Your task to perform on an android device: Search for a new desk on Ikea Image 0: 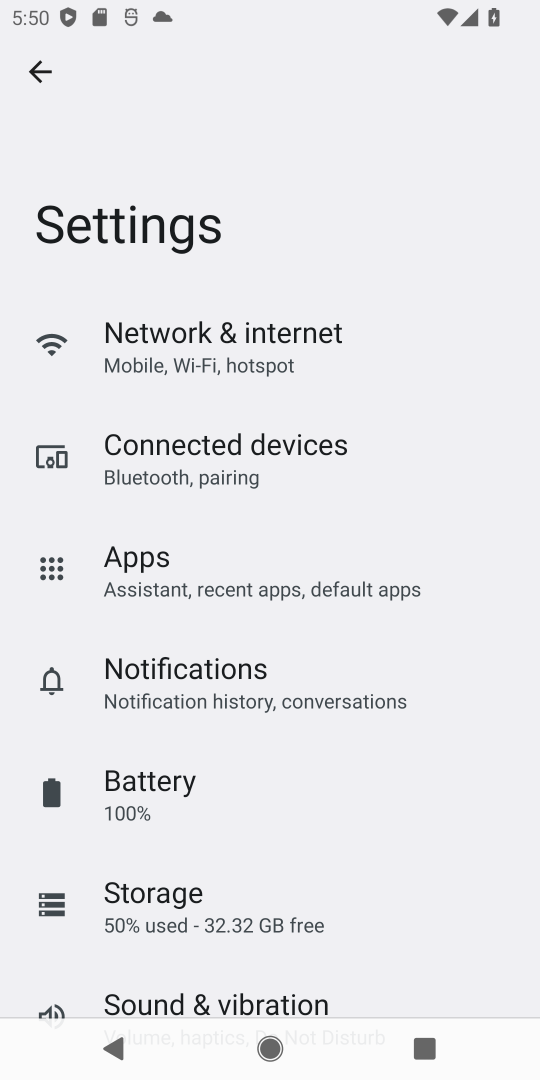
Step 0: press home button
Your task to perform on an android device: Search for a new desk on Ikea Image 1: 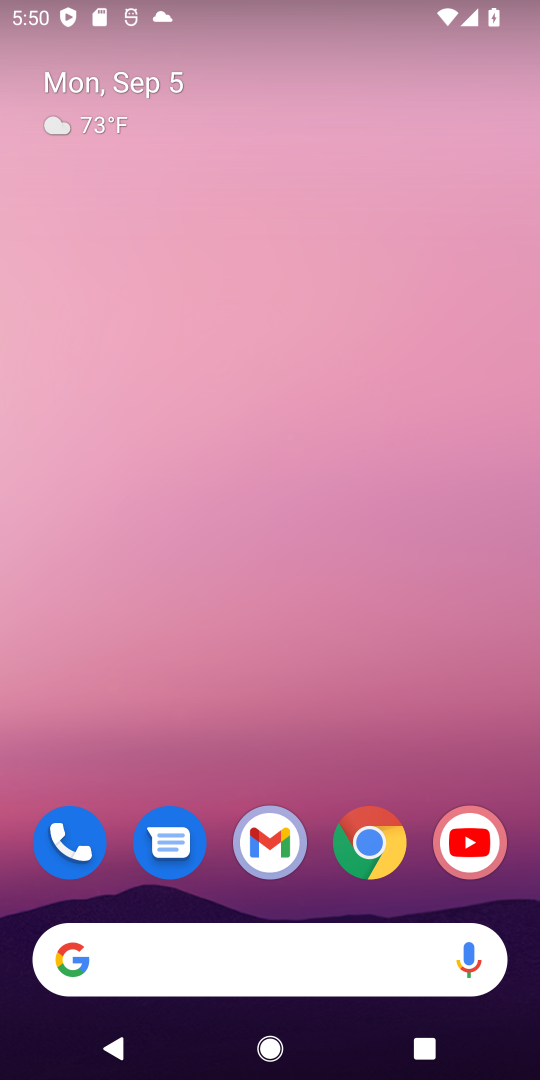
Step 1: click (369, 840)
Your task to perform on an android device: Search for a new desk on Ikea Image 2: 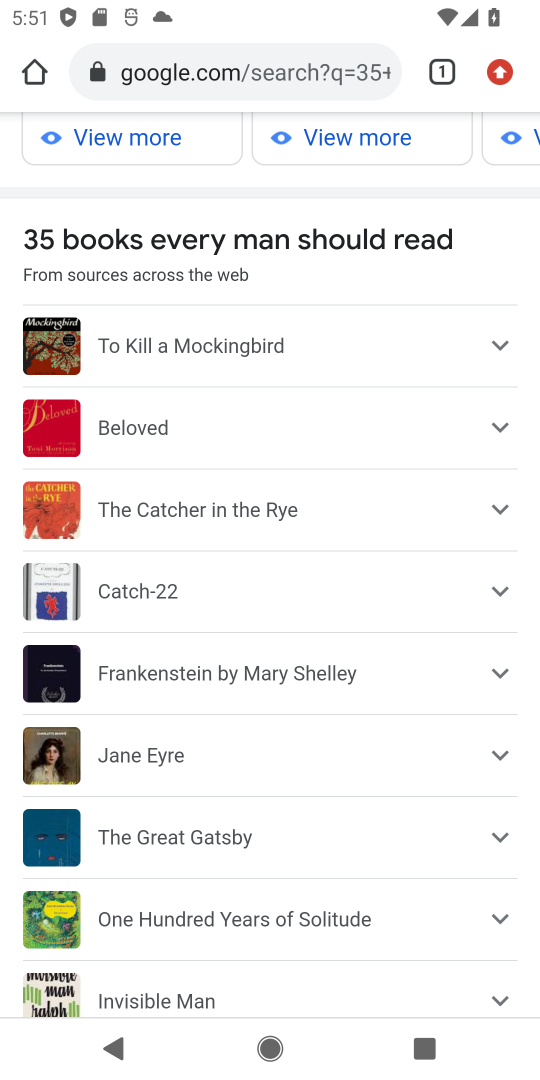
Step 2: click (341, 77)
Your task to perform on an android device: Search for a new desk on Ikea Image 3: 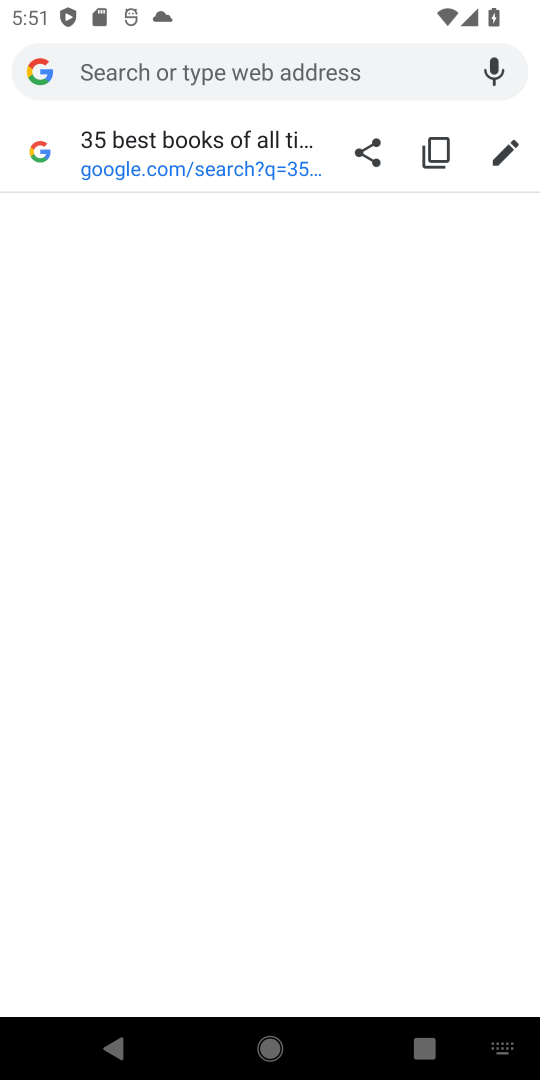
Step 3: type "Ikea"
Your task to perform on an android device: Search for a new desk on Ikea Image 4: 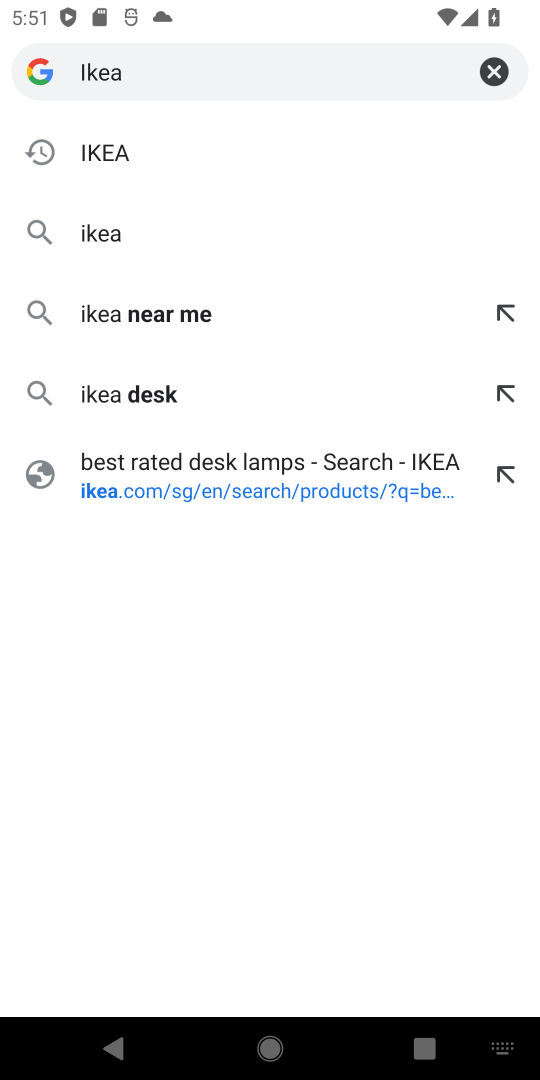
Step 4: click (111, 235)
Your task to perform on an android device: Search for a new desk on Ikea Image 5: 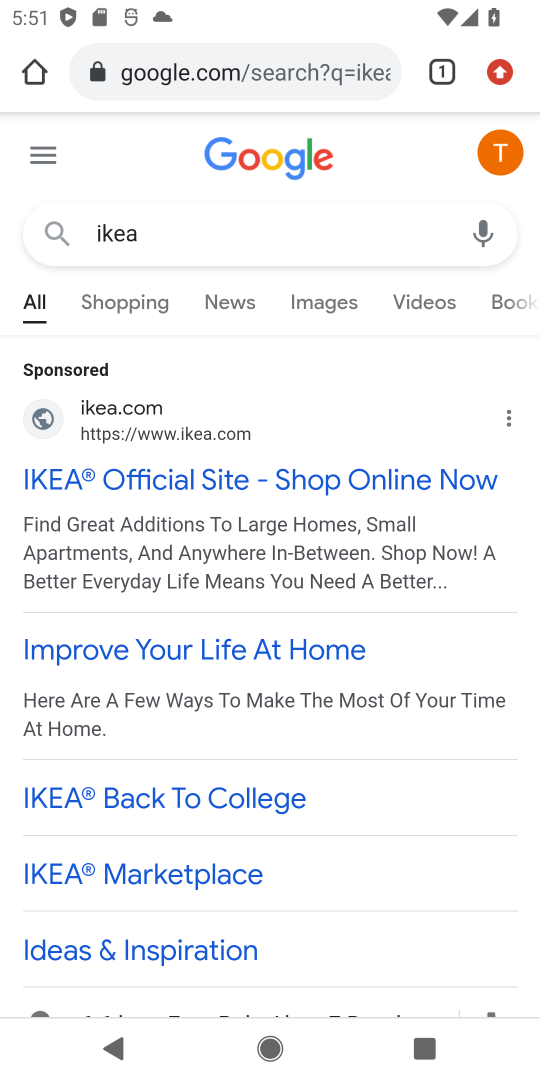
Step 5: drag from (331, 889) to (374, 113)
Your task to perform on an android device: Search for a new desk on Ikea Image 6: 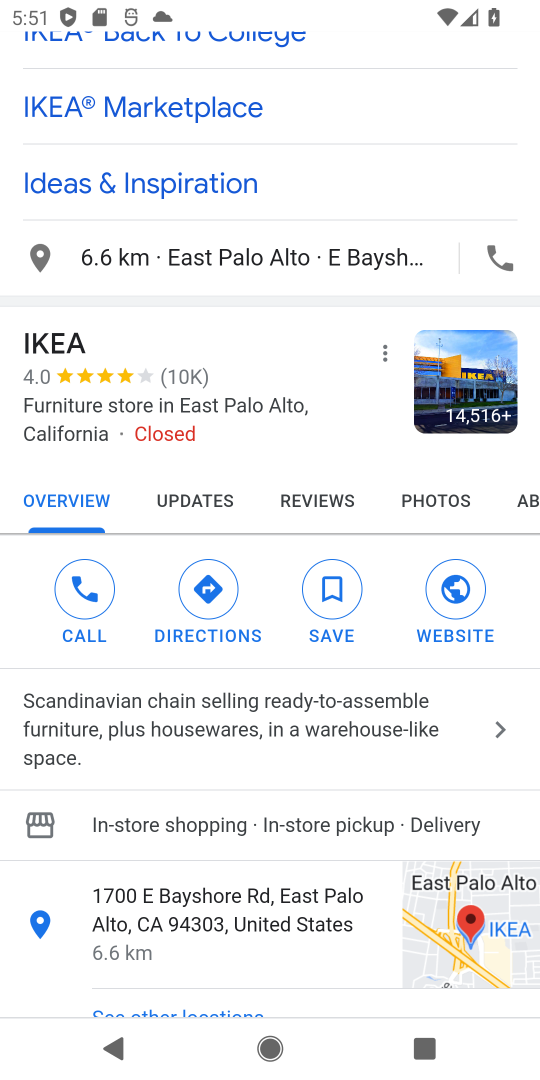
Step 6: drag from (317, 776) to (444, 262)
Your task to perform on an android device: Search for a new desk on Ikea Image 7: 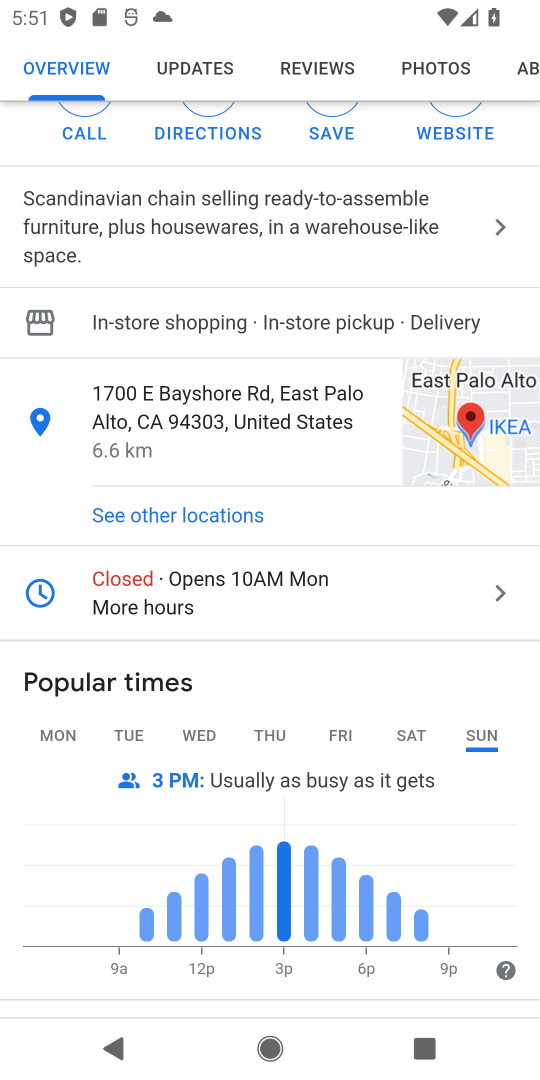
Step 7: drag from (292, 681) to (404, 345)
Your task to perform on an android device: Search for a new desk on Ikea Image 8: 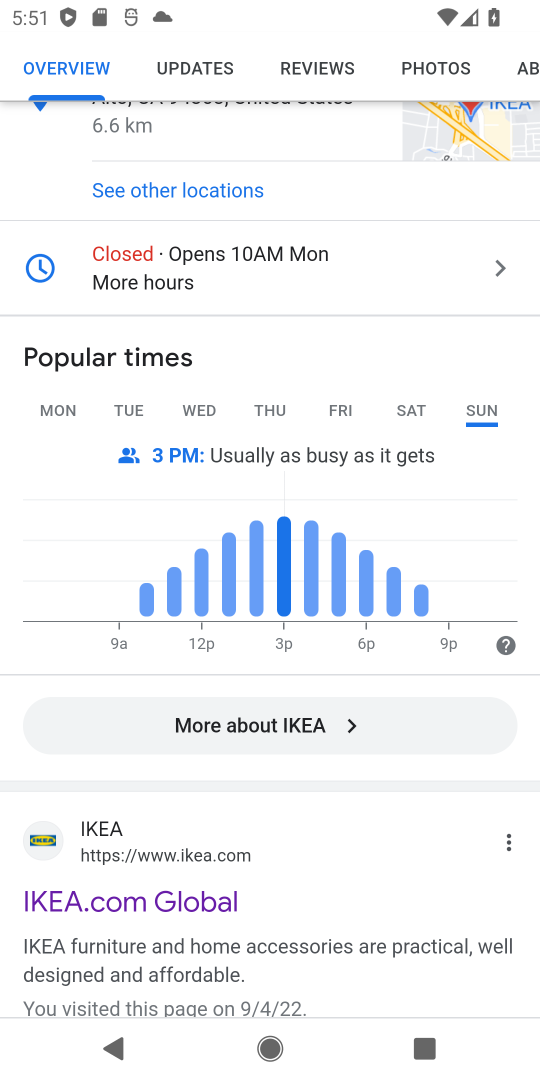
Step 8: click (225, 859)
Your task to perform on an android device: Search for a new desk on Ikea Image 9: 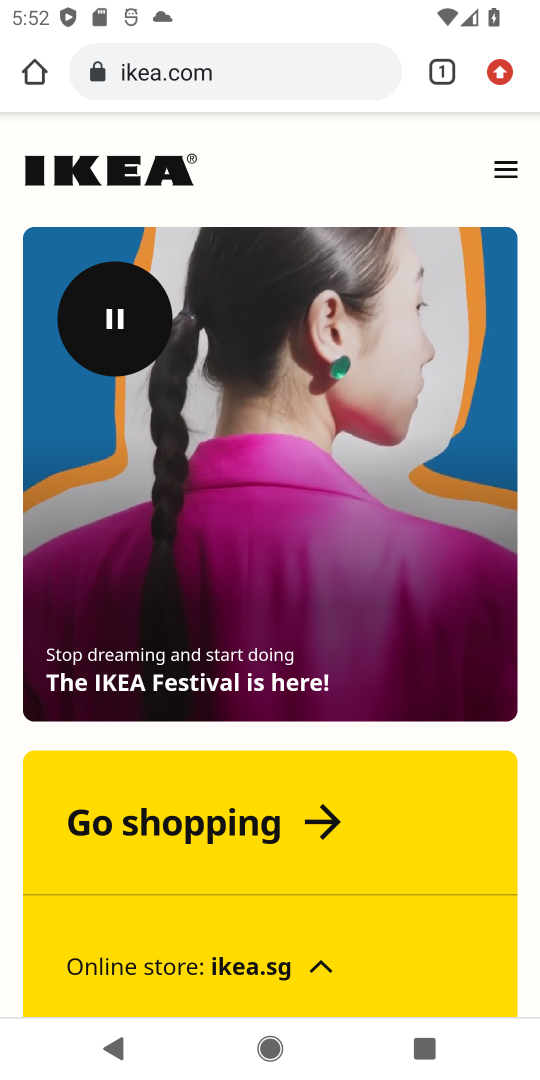
Step 9: click (323, 819)
Your task to perform on an android device: Search for a new desk on Ikea Image 10: 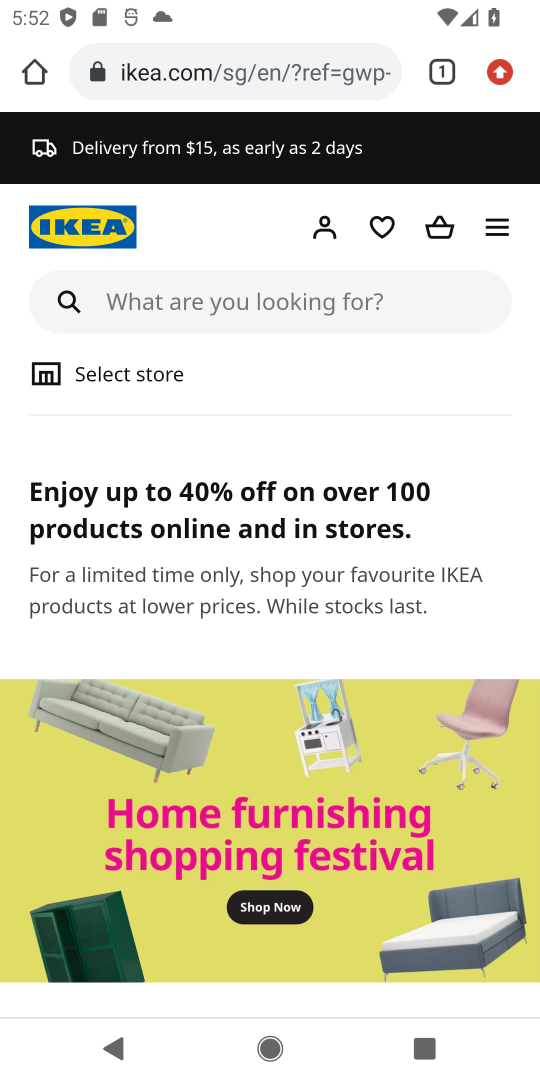
Step 10: click (366, 293)
Your task to perform on an android device: Search for a new desk on Ikea Image 11: 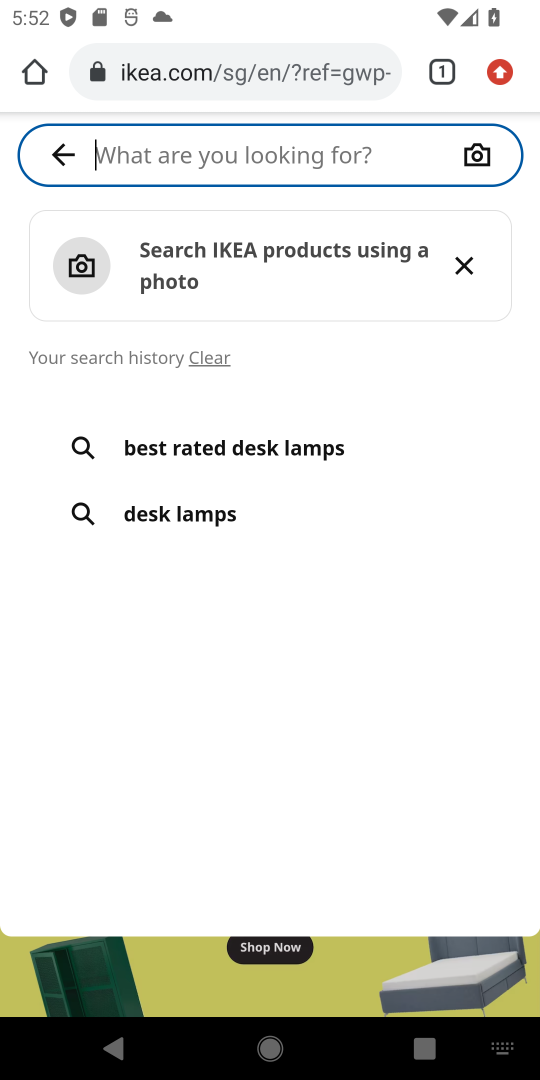
Step 11: type "new desk"
Your task to perform on an android device: Search for a new desk on Ikea Image 12: 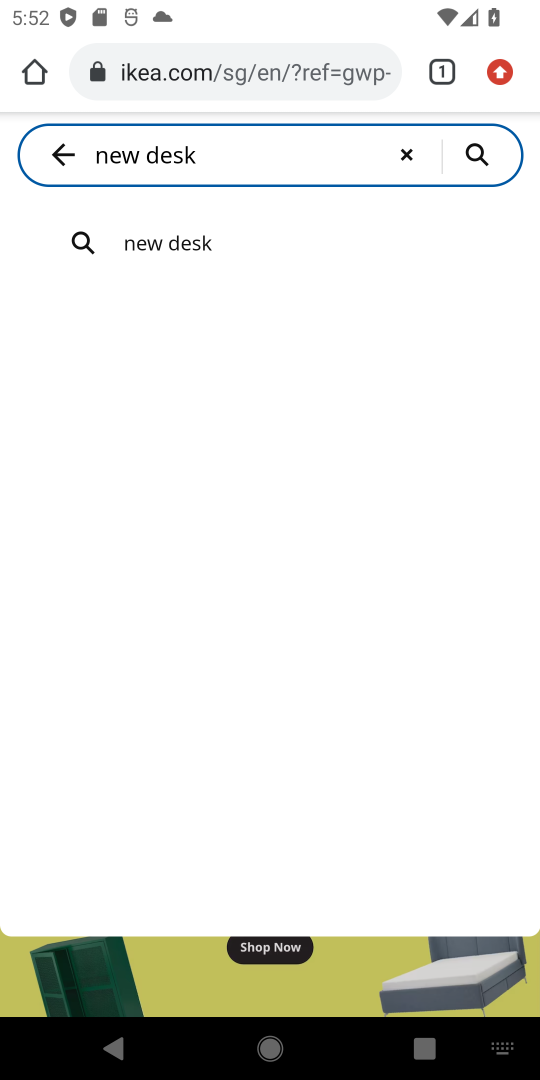
Step 12: click (195, 246)
Your task to perform on an android device: Search for a new desk on Ikea Image 13: 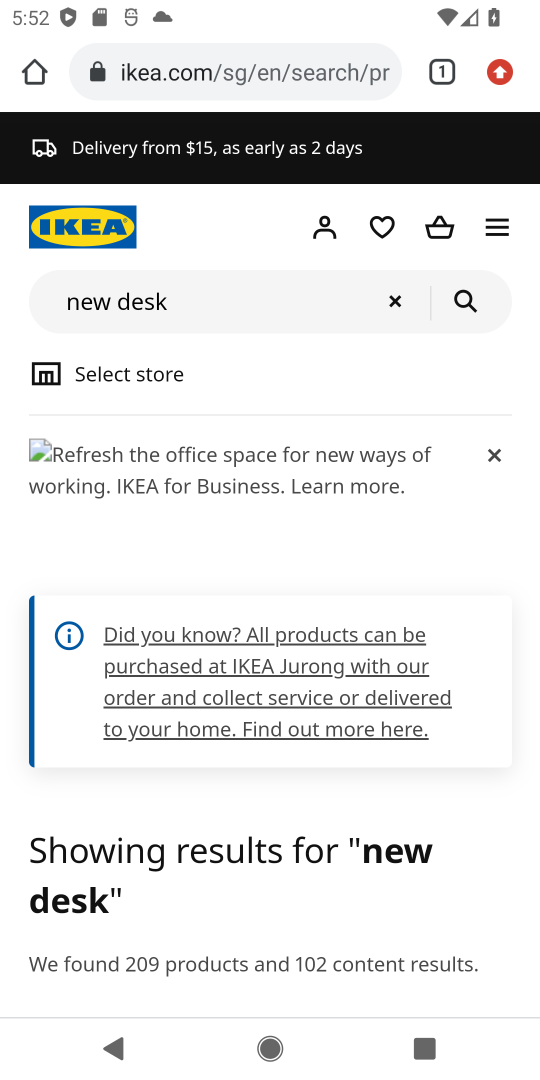
Step 13: click (501, 453)
Your task to perform on an android device: Search for a new desk on Ikea Image 14: 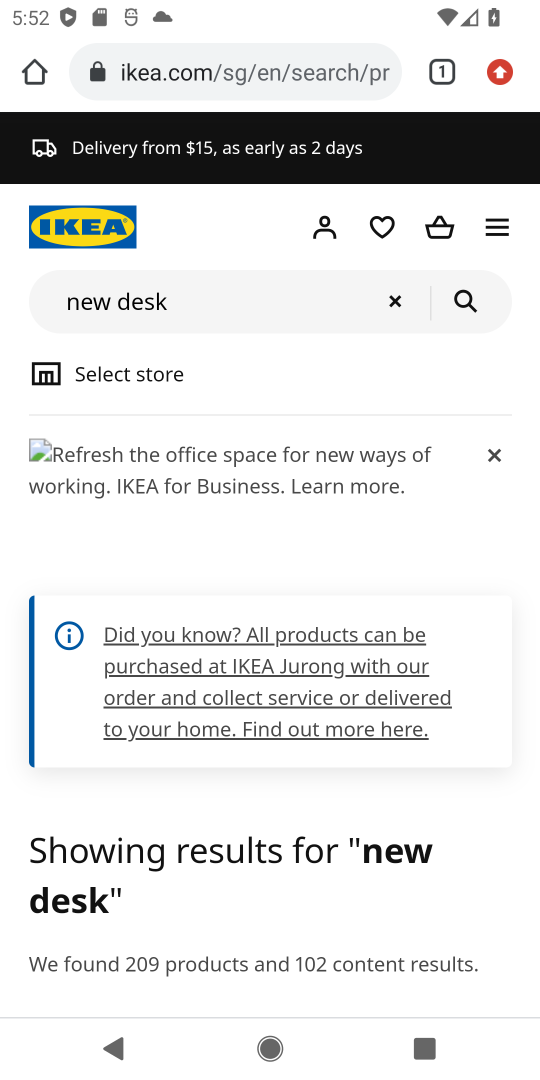
Step 14: click (496, 454)
Your task to perform on an android device: Search for a new desk on Ikea Image 15: 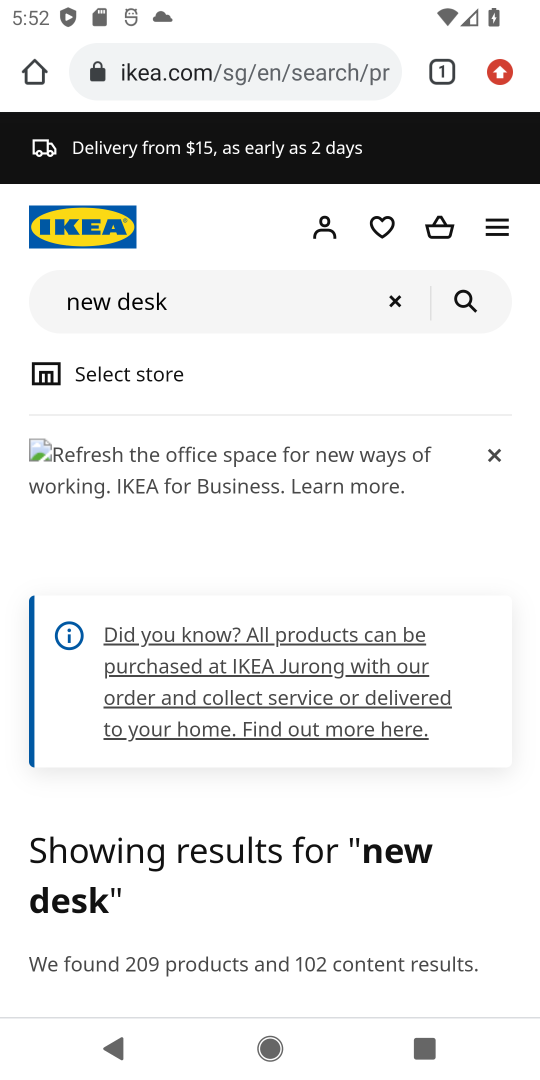
Step 15: click (496, 453)
Your task to perform on an android device: Search for a new desk on Ikea Image 16: 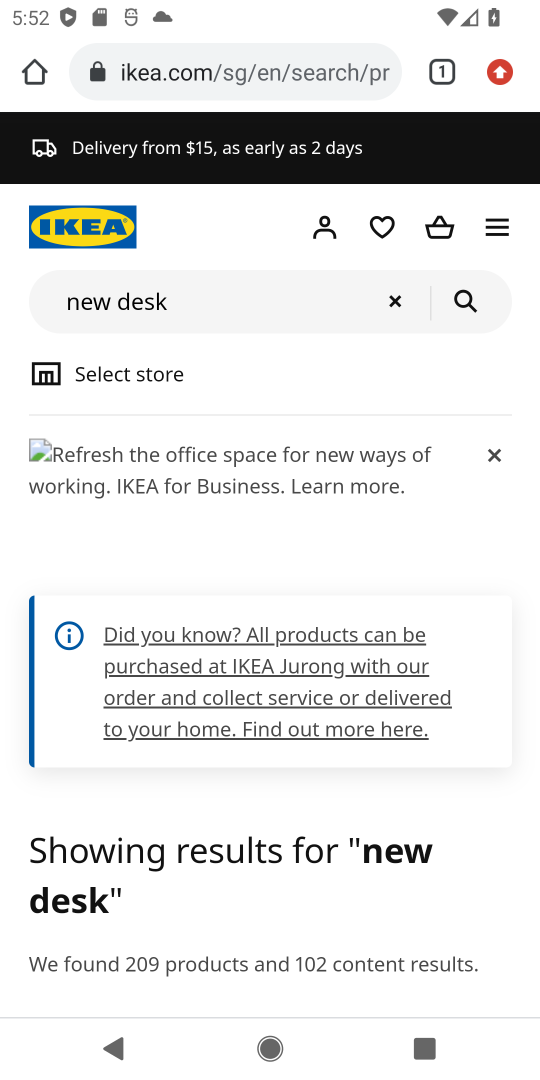
Step 16: task complete